Your task to perform on an android device: delete browsing data in the chrome app Image 0: 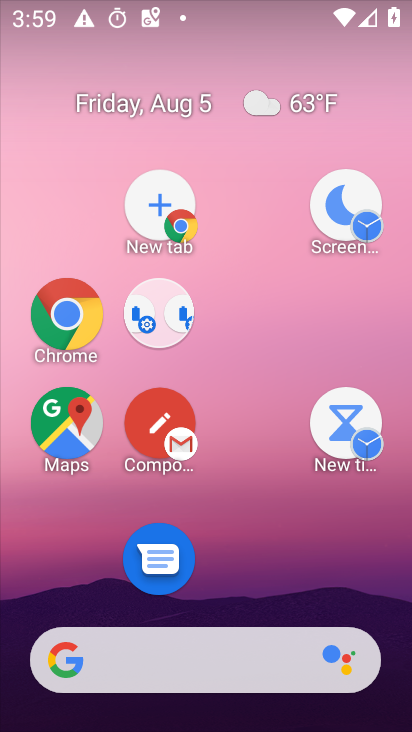
Step 0: drag from (199, 332) to (190, 213)
Your task to perform on an android device: delete browsing data in the chrome app Image 1: 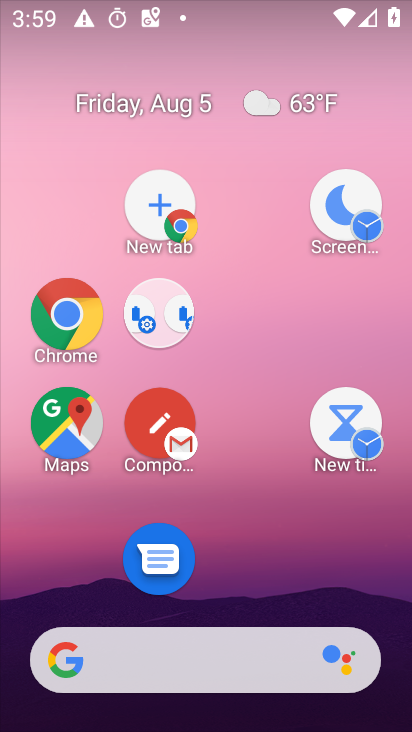
Step 1: drag from (183, 532) to (183, 324)
Your task to perform on an android device: delete browsing data in the chrome app Image 2: 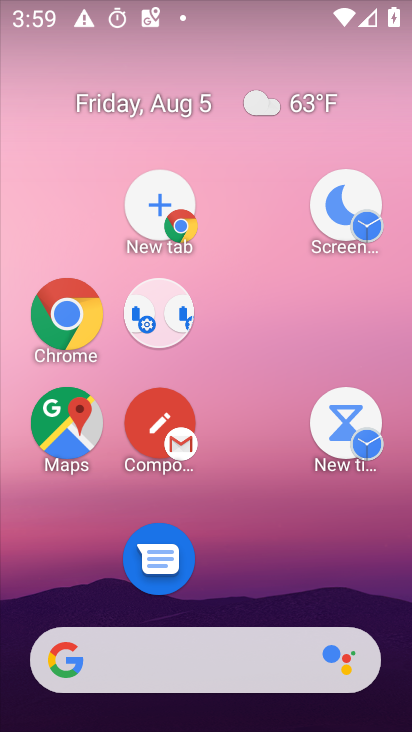
Step 2: drag from (256, 394) to (266, 159)
Your task to perform on an android device: delete browsing data in the chrome app Image 3: 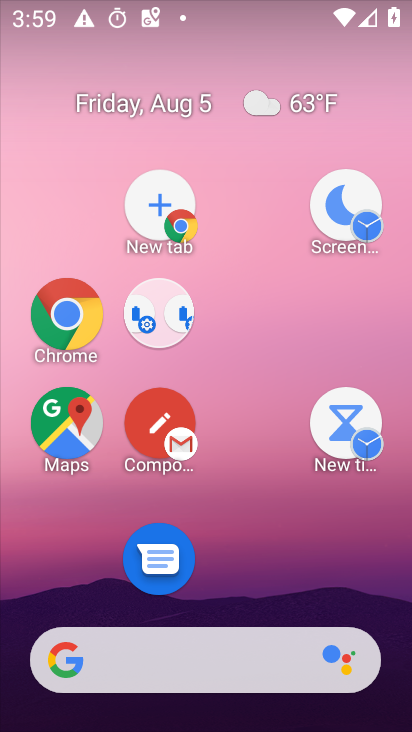
Step 3: drag from (222, 576) to (192, 111)
Your task to perform on an android device: delete browsing data in the chrome app Image 4: 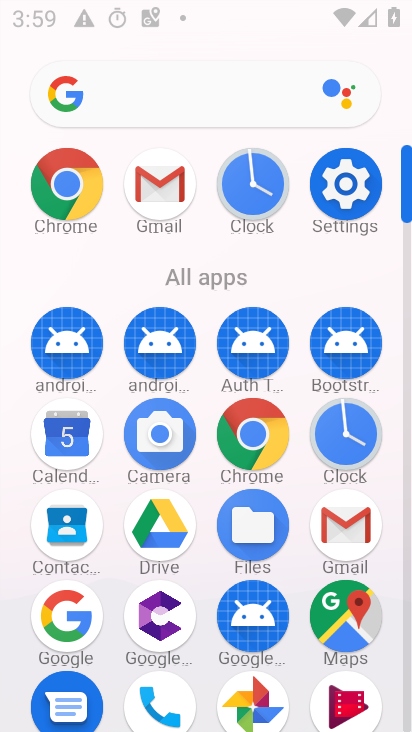
Step 4: drag from (212, 505) to (207, 425)
Your task to perform on an android device: delete browsing data in the chrome app Image 5: 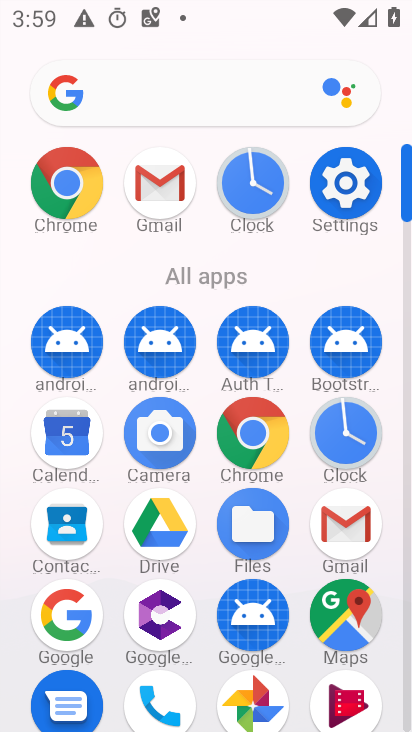
Step 5: click (238, 442)
Your task to perform on an android device: delete browsing data in the chrome app Image 6: 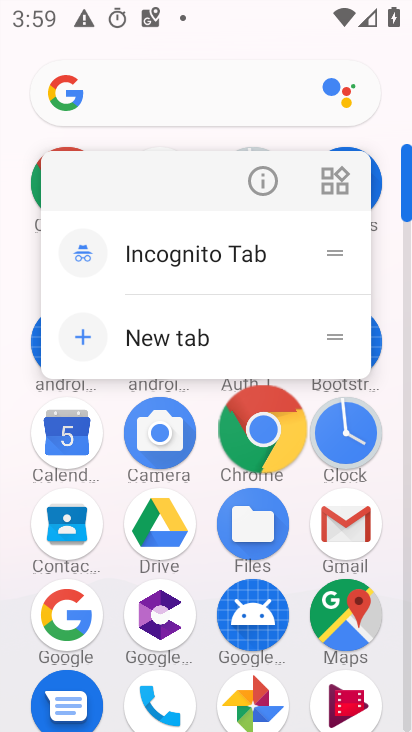
Step 6: click (249, 438)
Your task to perform on an android device: delete browsing data in the chrome app Image 7: 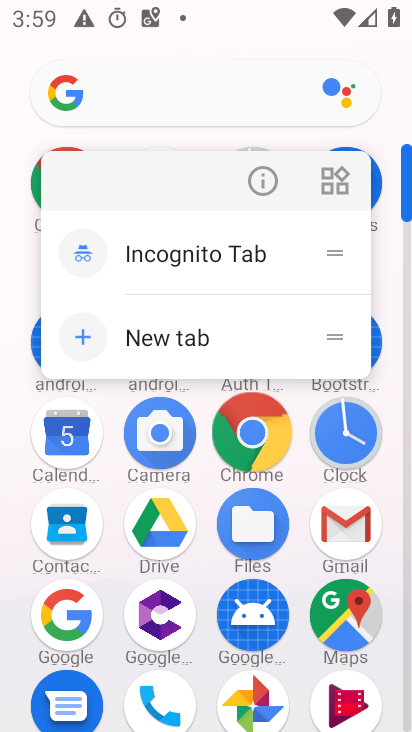
Step 7: click (255, 435)
Your task to perform on an android device: delete browsing data in the chrome app Image 8: 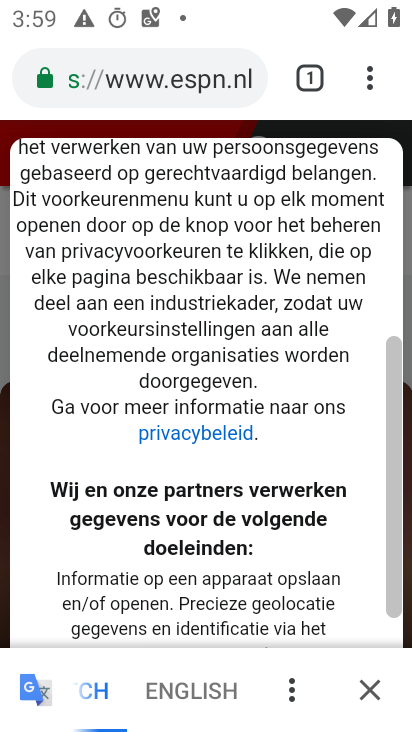
Step 8: drag from (371, 80) to (85, 110)
Your task to perform on an android device: delete browsing data in the chrome app Image 9: 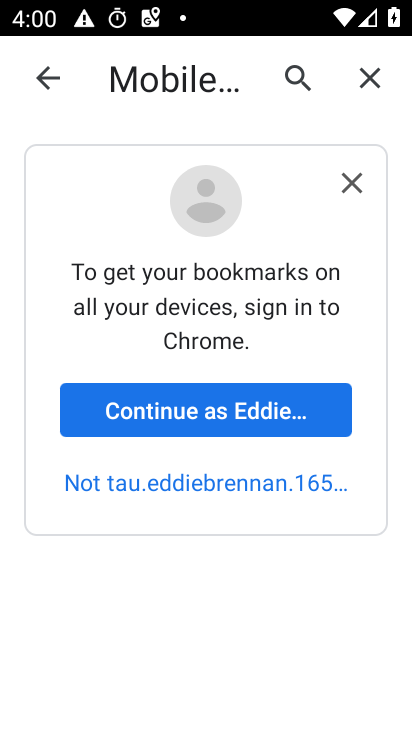
Step 9: click (64, 237)
Your task to perform on an android device: delete browsing data in the chrome app Image 10: 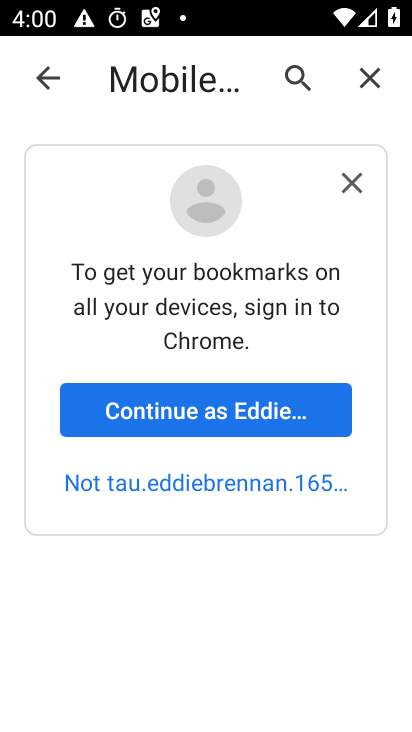
Step 10: click (53, 69)
Your task to perform on an android device: delete browsing data in the chrome app Image 11: 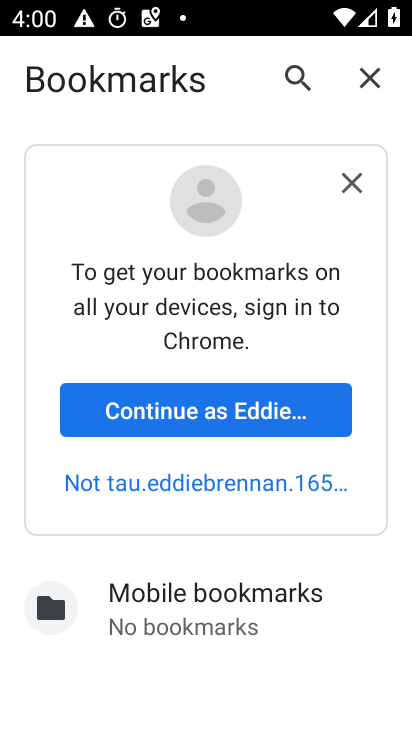
Step 11: click (366, 73)
Your task to perform on an android device: delete browsing data in the chrome app Image 12: 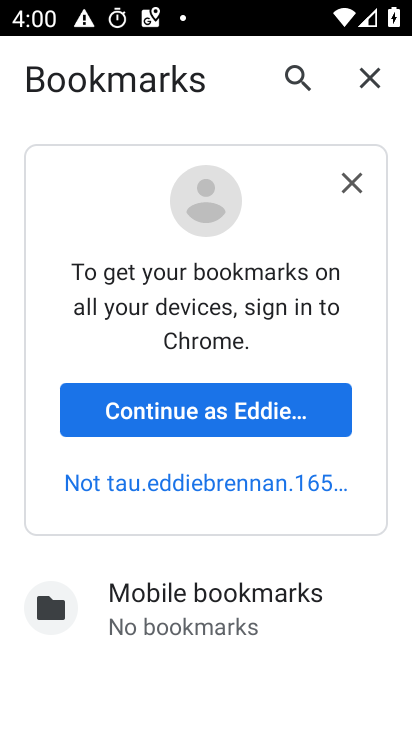
Step 12: click (366, 73)
Your task to perform on an android device: delete browsing data in the chrome app Image 13: 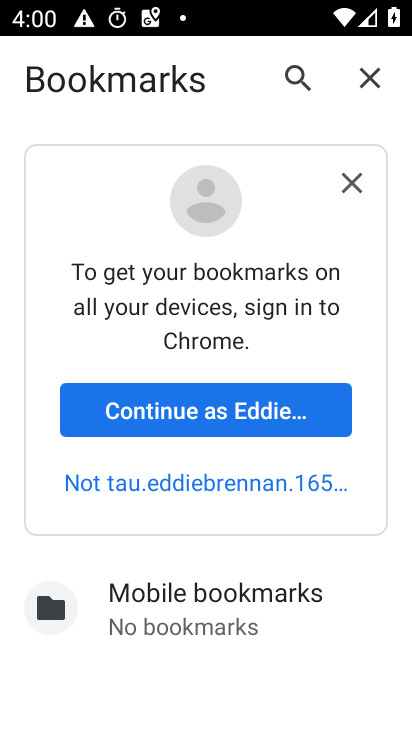
Step 13: click (367, 70)
Your task to perform on an android device: delete browsing data in the chrome app Image 14: 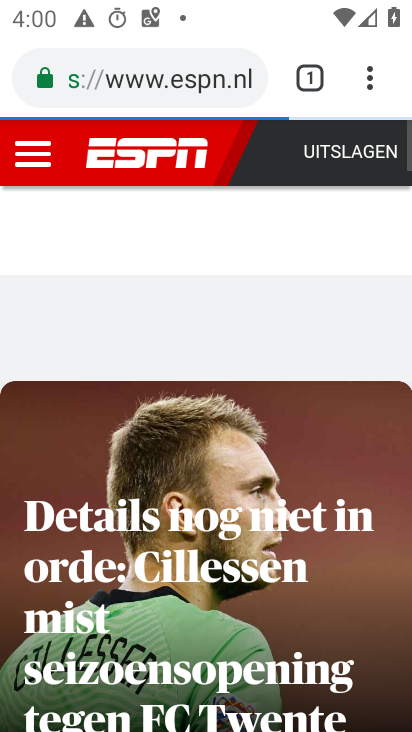
Step 14: drag from (367, 73) to (95, 439)
Your task to perform on an android device: delete browsing data in the chrome app Image 15: 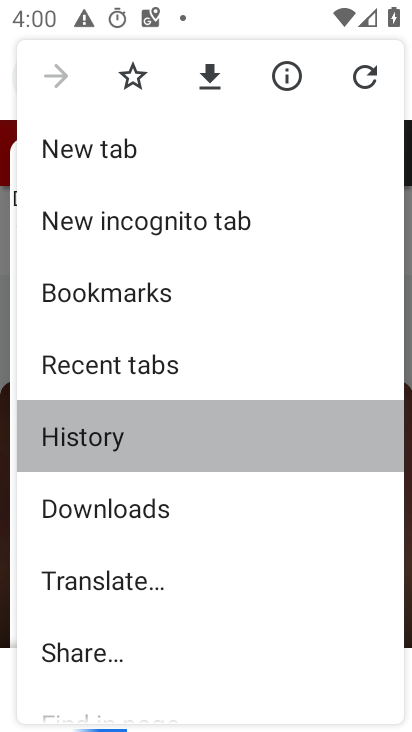
Step 15: click (98, 439)
Your task to perform on an android device: delete browsing data in the chrome app Image 16: 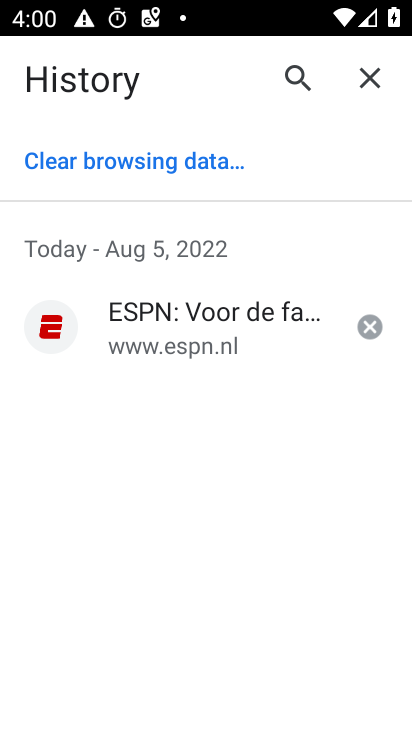
Step 16: click (129, 158)
Your task to perform on an android device: delete browsing data in the chrome app Image 17: 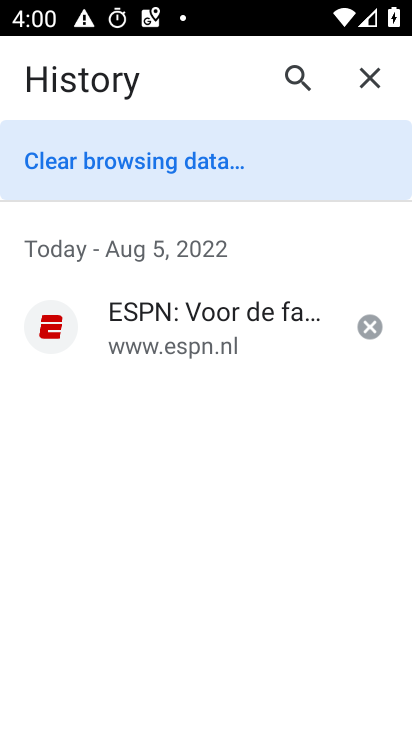
Step 17: click (129, 158)
Your task to perform on an android device: delete browsing data in the chrome app Image 18: 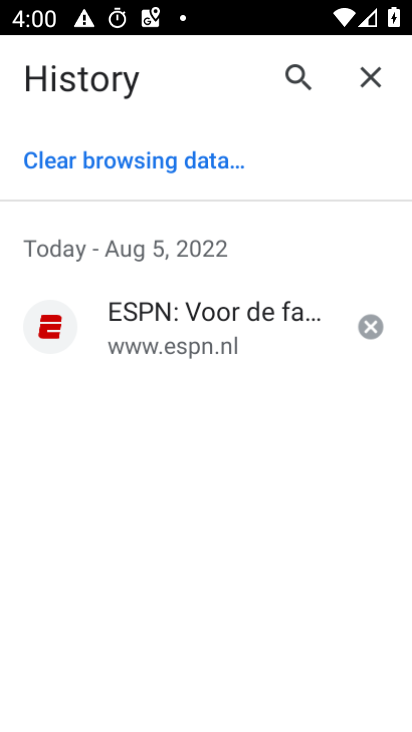
Step 18: click (129, 158)
Your task to perform on an android device: delete browsing data in the chrome app Image 19: 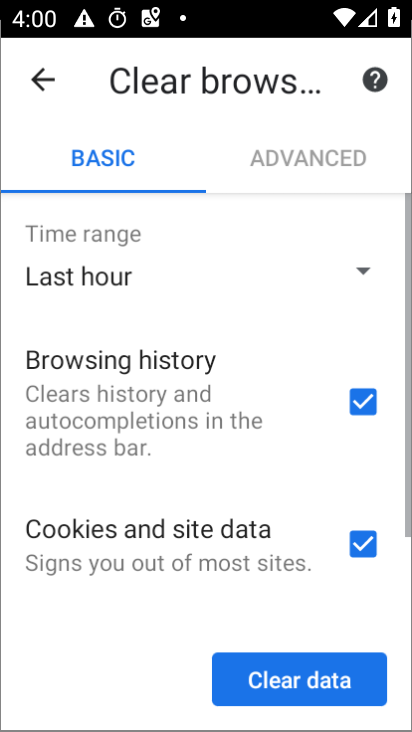
Step 19: click (129, 158)
Your task to perform on an android device: delete browsing data in the chrome app Image 20: 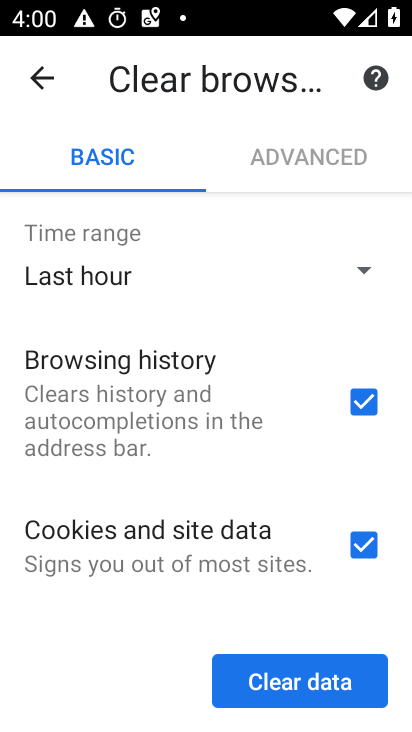
Step 20: task complete